Your task to perform on an android device: open a bookmark in the chrome app Image 0: 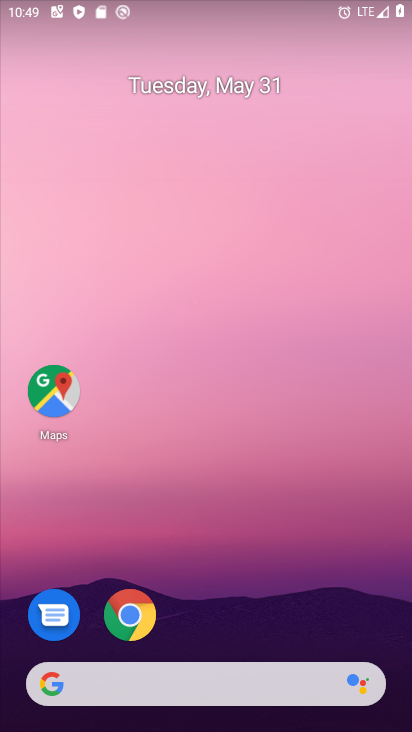
Step 0: drag from (275, 570) to (285, 11)
Your task to perform on an android device: open a bookmark in the chrome app Image 1: 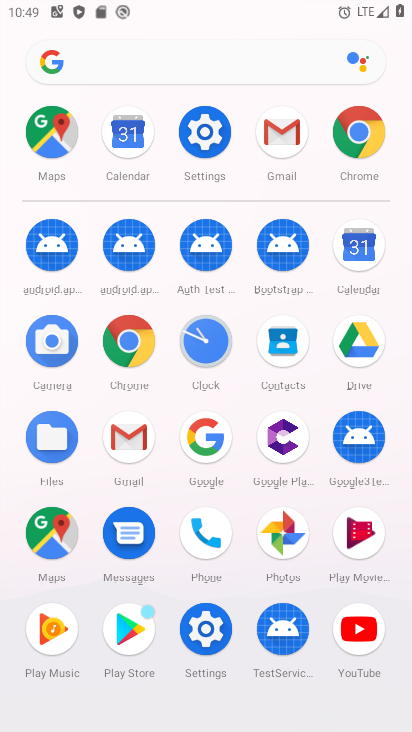
Step 1: click (354, 150)
Your task to perform on an android device: open a bookmark in the chrome app Image 2: 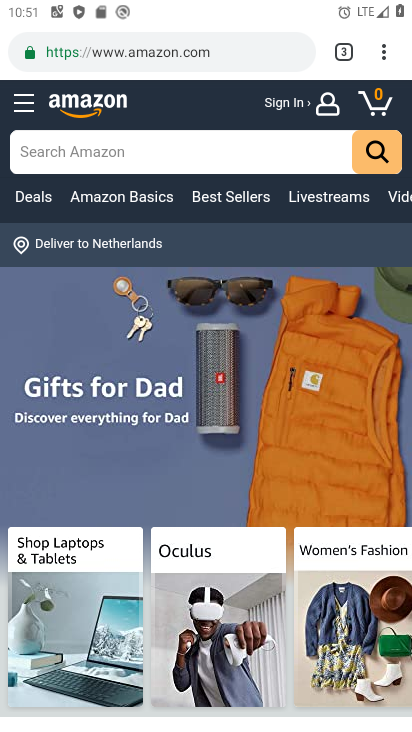
Step 2: task complete